Your task to perform on an android device: turn off sleep mode Image 0: 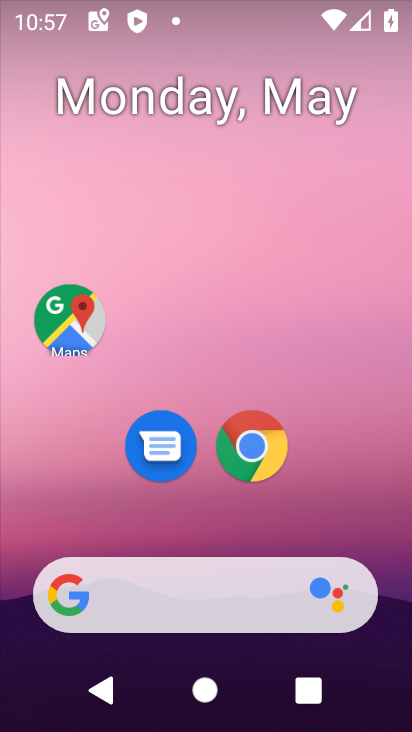
Step 0: drag from (386, 488) to (332, 66)
Your task to perform on an android device: turn off sleep mode Image 1: 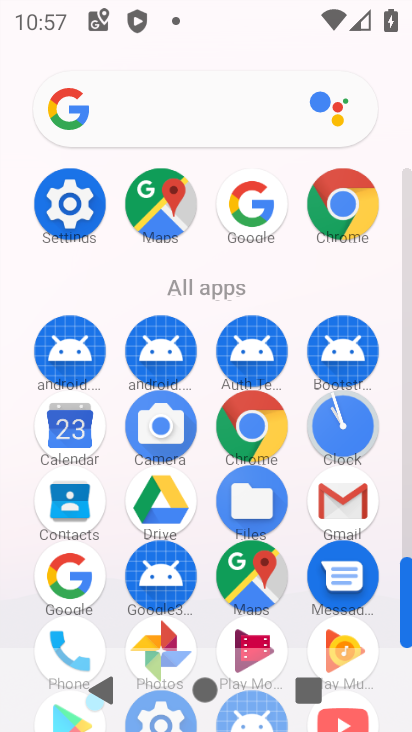
Step 1: click (72, 213)
Your task to perform on an android device: turn off sleep mode Image 2: 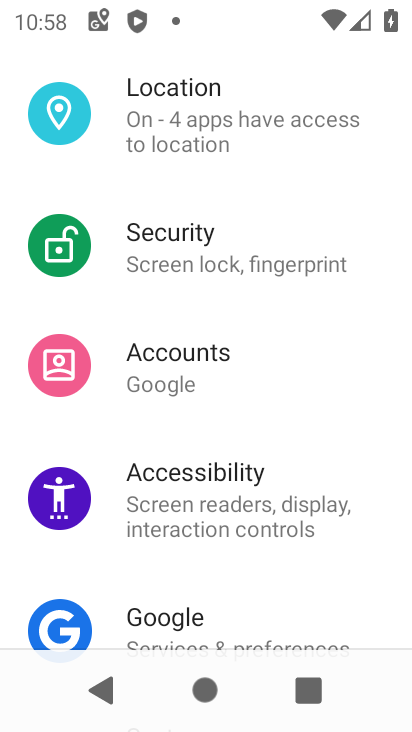
Step 2: drag from (205, 239) to (243, 613)
Your task to perform on an android device: turn off sleep mode Image 3: 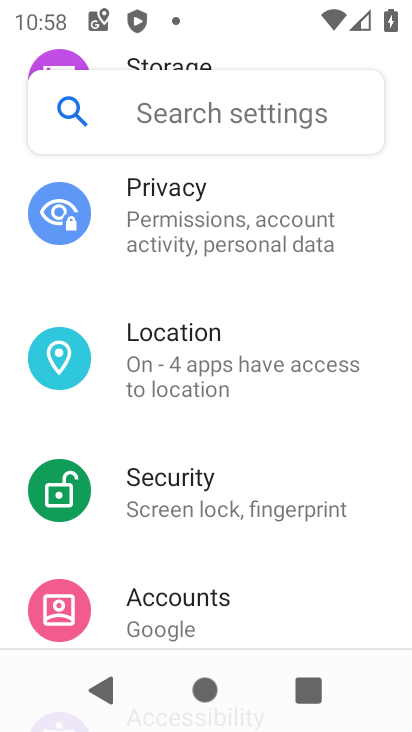
Step 3: drag from (174, 242) to (201, 543)
Your task to perform on an android device: turn off sleep mode Image 4: 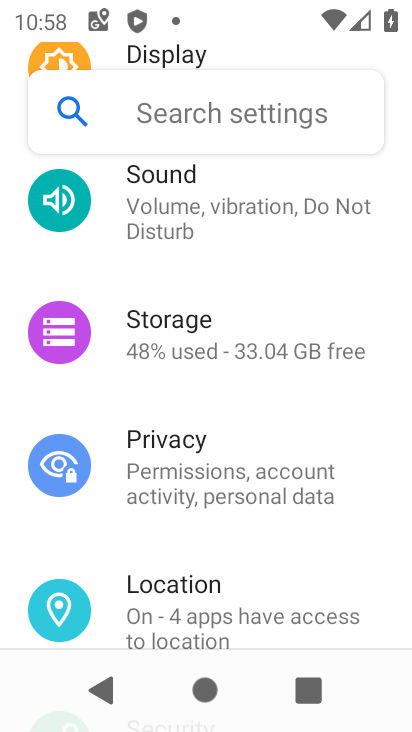
Step 4: drag from (217, 254) to (250, 684)
Your task to perform on an android device: turn off sleep mode Image 5: 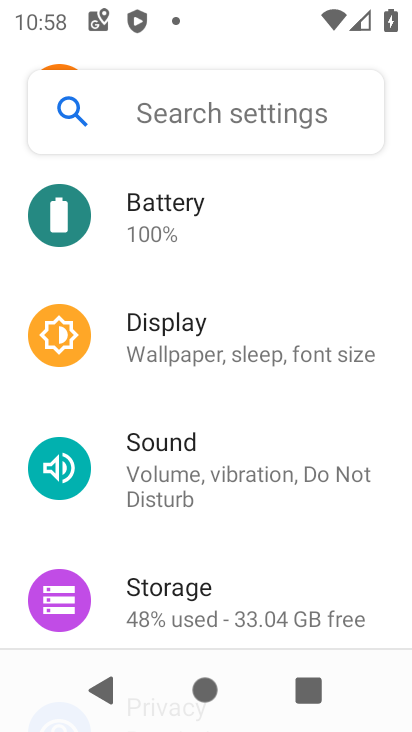
Step 5: click (176, 339)
Your task to perform on an android device: turn off sleep mode Image 6: 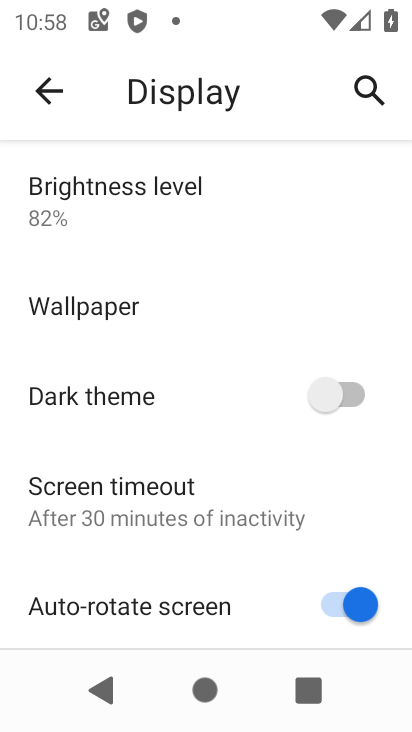
Step 6: drag from (130, 585) to (93, 245)
Your task to perform on an android device: turn off sleep mode Image 7: 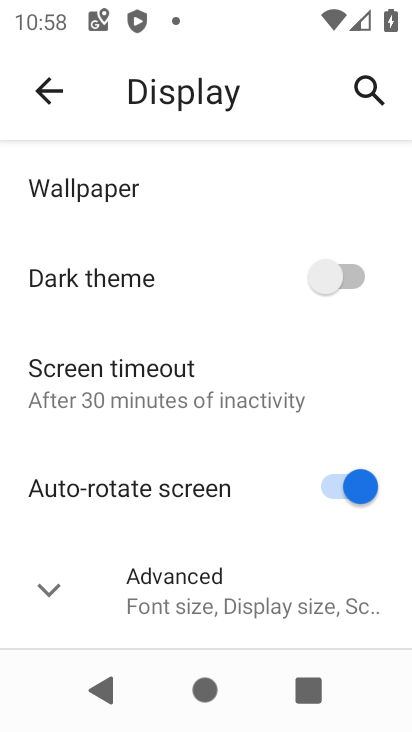
Step 7: drag from (151, 468) to (167, 647)
Your task to perform on an android device: turn off sleep mode Image 8: 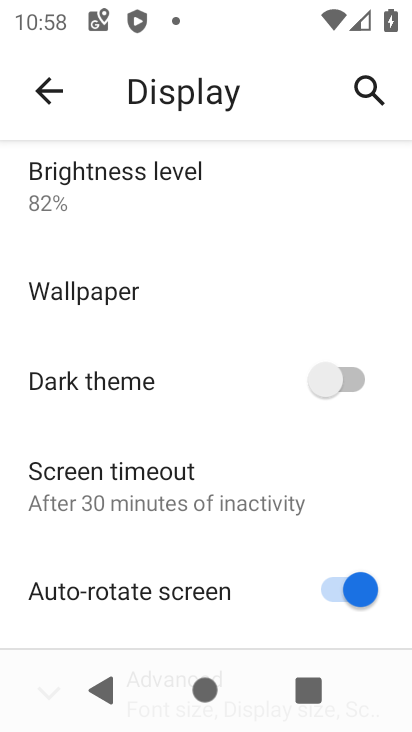
Step 8: drag from (104, 254) to (137, 608)
Your task to perform on an android device: turn off sleep mode Image 9: 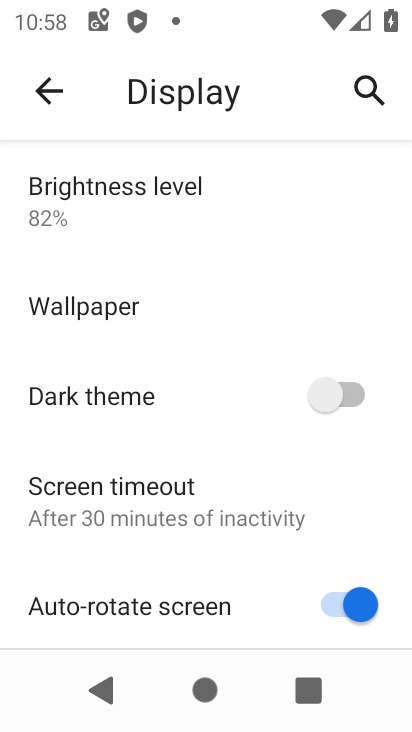
Step 9: click (117, 532)
Your task to perform on an android device: turn off sleep mode Image 10: 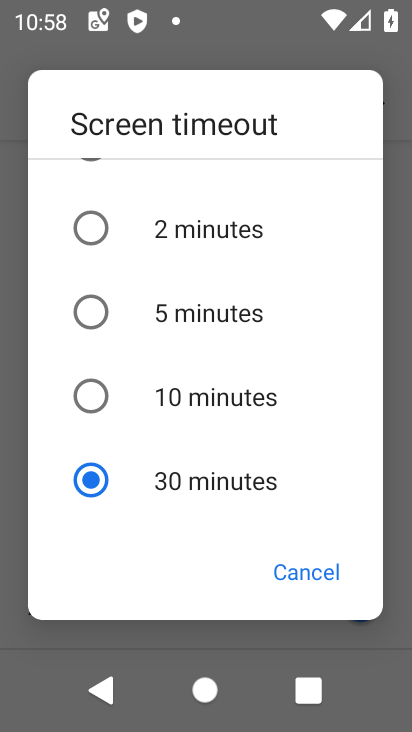
Step 10: task complete